Your task to perform on an android device: What's the weather today? Image 0: 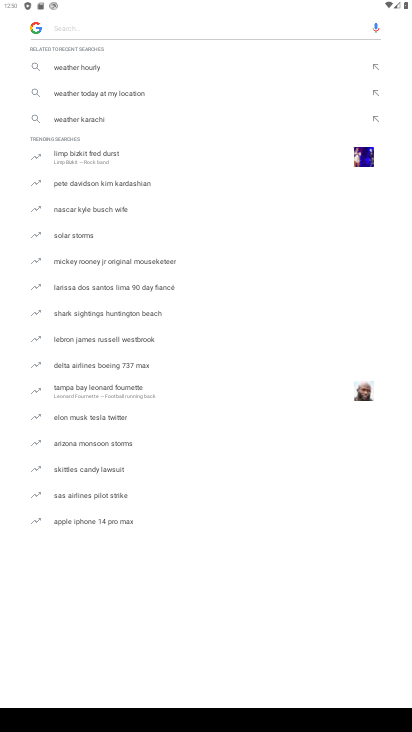
Step 0: click (82, 68)
Your task to perform on an android device: What's the weather today? Image 1: 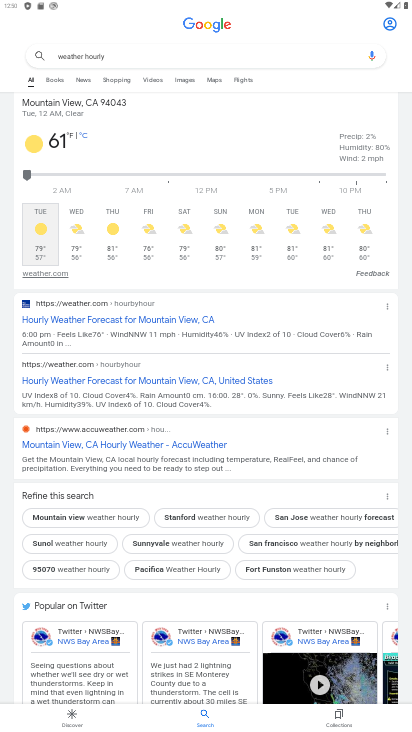
Step 1: click (34, 234)
Your task to perform on an android device: What's the weather today? Image 2: 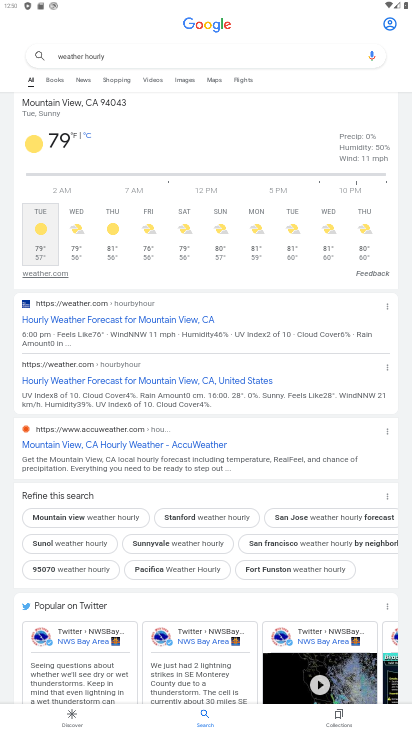
Step 2: task complete